Your task to perform on an android device: Go to notification settings Image 0: 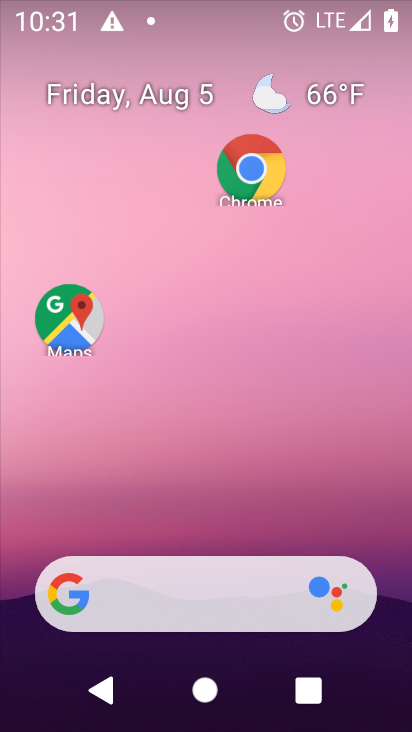
Step 0: drag from (214, 512) to (194, 146)
Your task to perform on an android device: Go to notification settings Image 1: 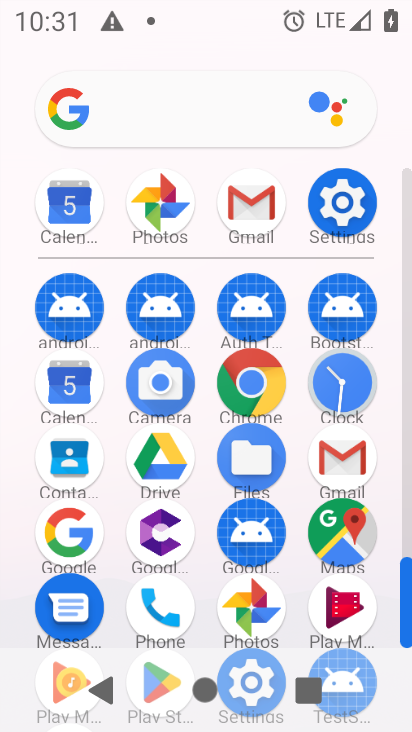
Step 1: click (334, 217)
Your task to perform on an android device: Go to notification settings Image 2: 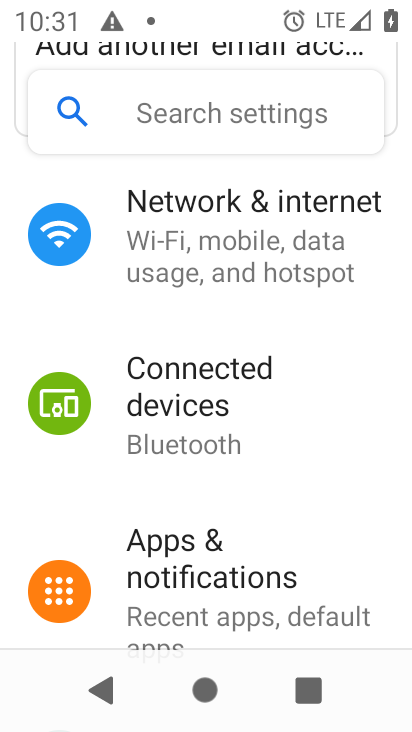
Step 2: click (263, 578)
Your task to perform on an android device: Go to notification settings Image 3: 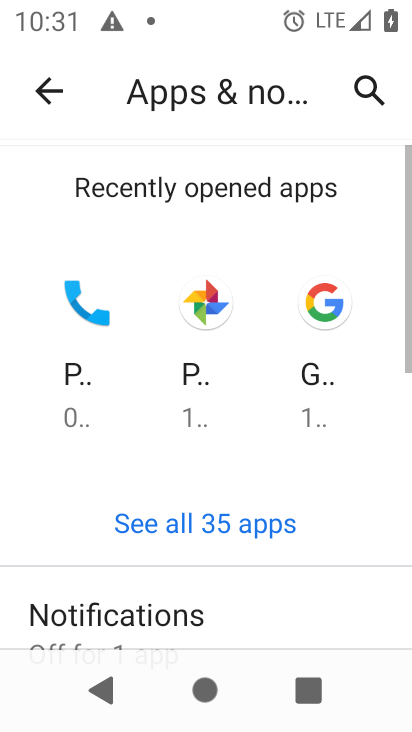
Step 3: click (224, 600)
Your task to perform on an android device: Go to notification settings Image 4: 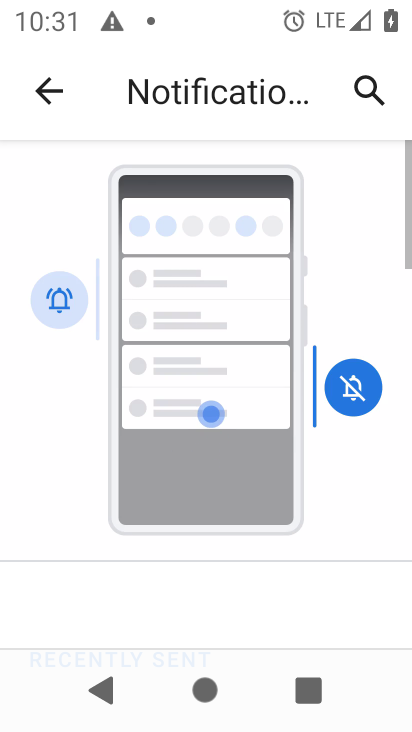
Step 4: task complete